Your task to perform on an android device: check data usage Image 0: 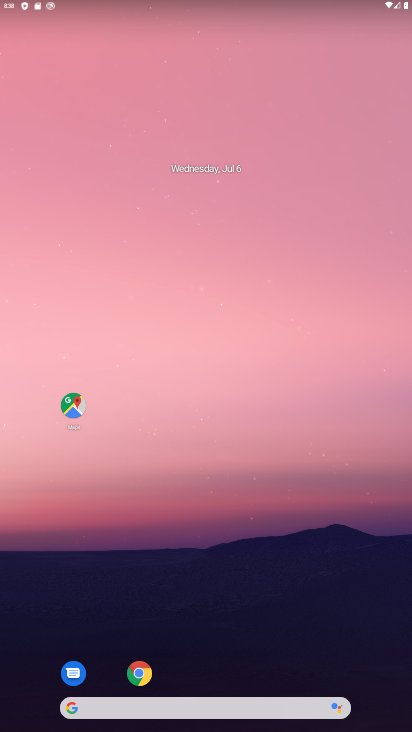
Step 0: drag from (254, 685) to (244, 331)
Your task to perform on an android device: check data usage Image 1: 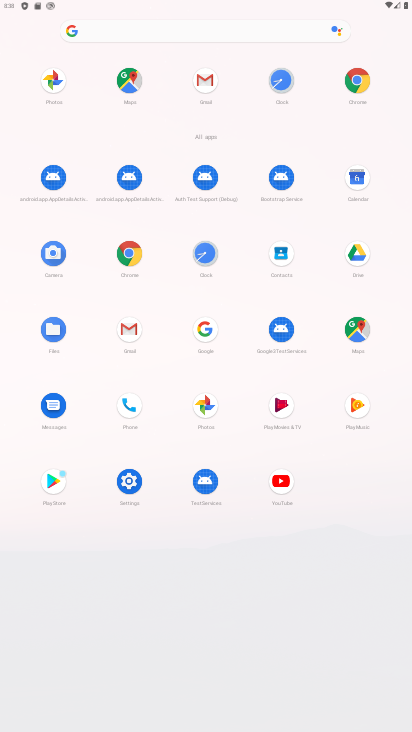
Step 1: click (132, 475)
Your task to perform on an android device: check data usage Image 2: 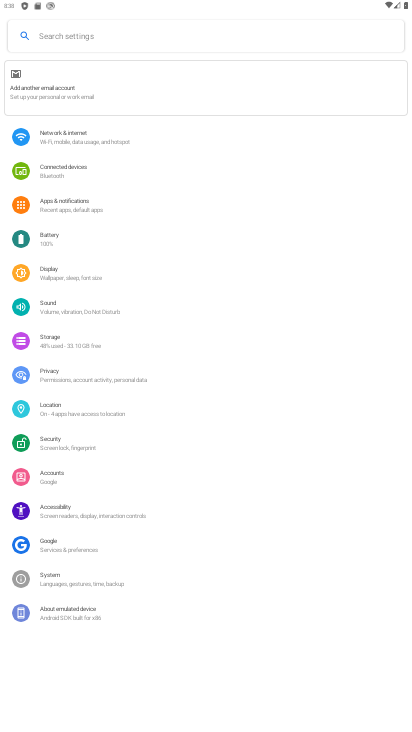
Step 2: click (92, 140)
Your task to perform on an android device: check data usage Image 3: 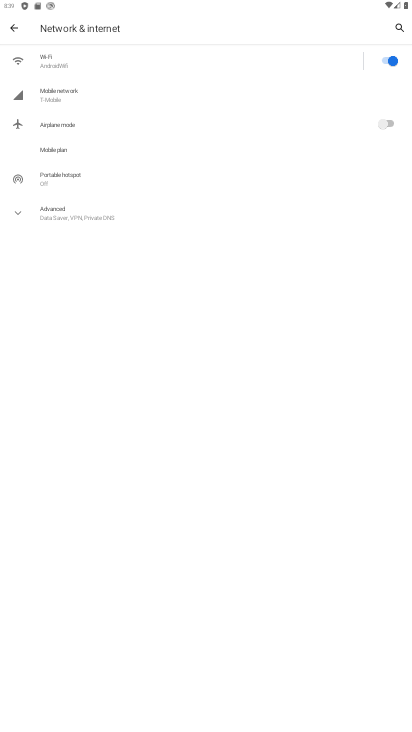
Step 3: click (78, 92)
Your task to perform on an android device: check data usage Image 4: 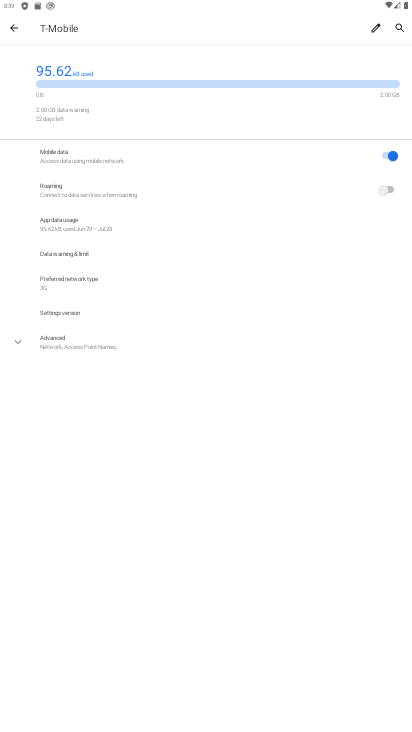
Step 4: click (17, 28)
Your task to perform on an android device: check data usage Image 5: 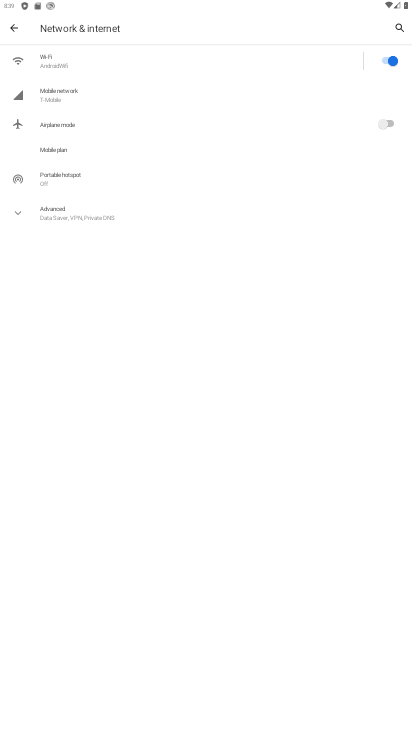
Step 5: task complete